Your task to perform on an android device: check android version Image 0: 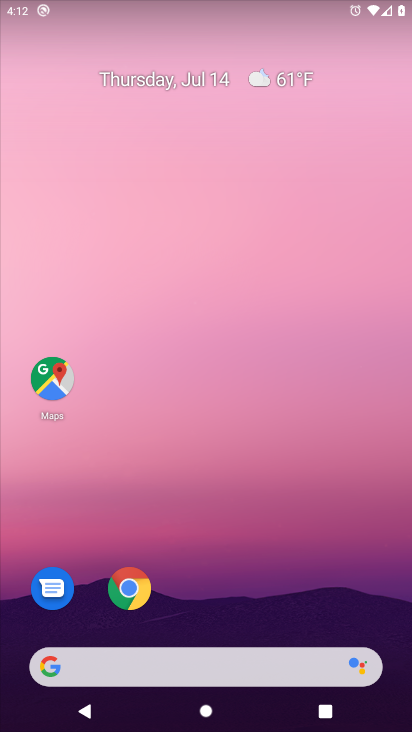
Step 0: press home button
Your task to perform on an android device: check android version Image 1: 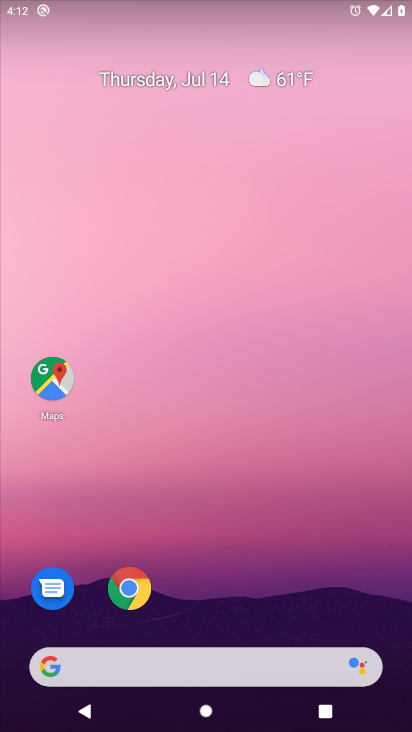
Step 1: drag from (274, 622) to (249, 2)
Your task to perform on an android device: check android version Image 2: 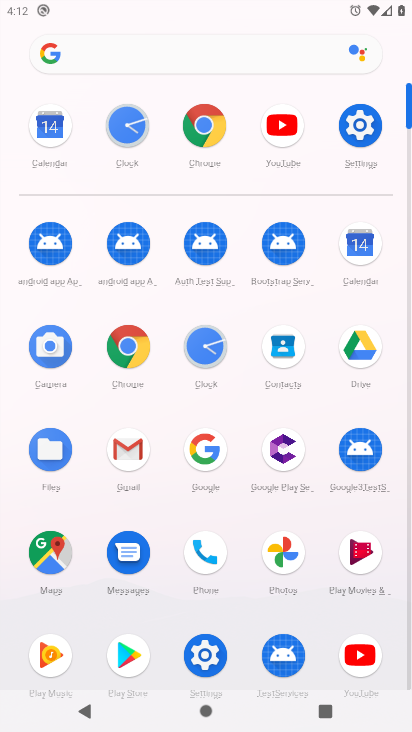
Step 2: click (370, 126)
Your task to perform on an android device: check android version Image 3: 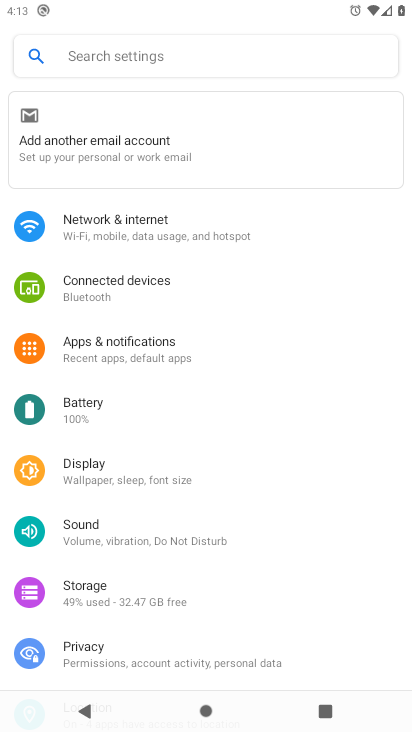
Step 3: drag from (252, 619) to (294, 2)
Your task to perform on an android device: check android version Image 4: 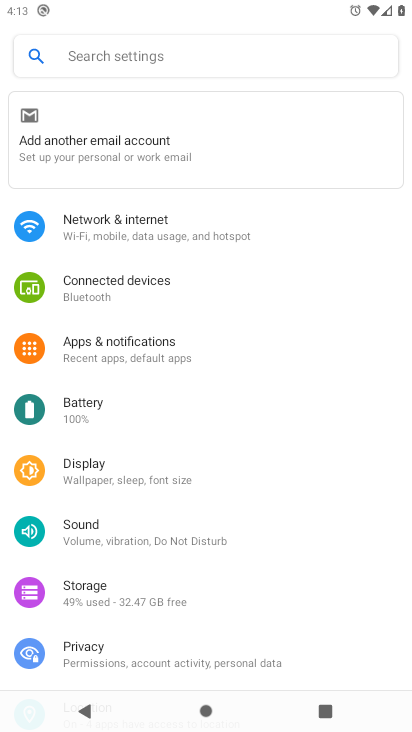
Step 4: drag from (171, 643) to (231, 73)
Your task to perform on an android device: check android version Image 5: 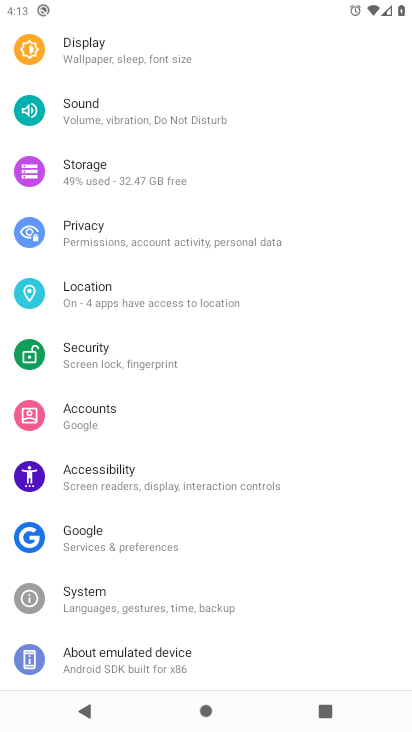
Step 5: click (121, 667)
Your task to perform on an android device: check android version Image 6: 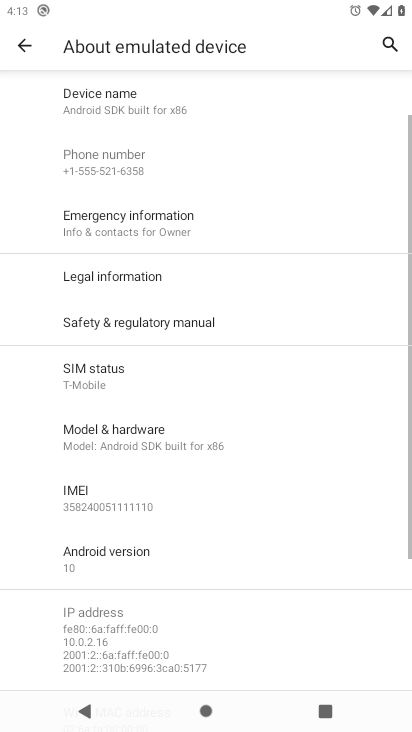
Step 6: click (117, 558)
Your task to perform on an android device: check android version Image 7: 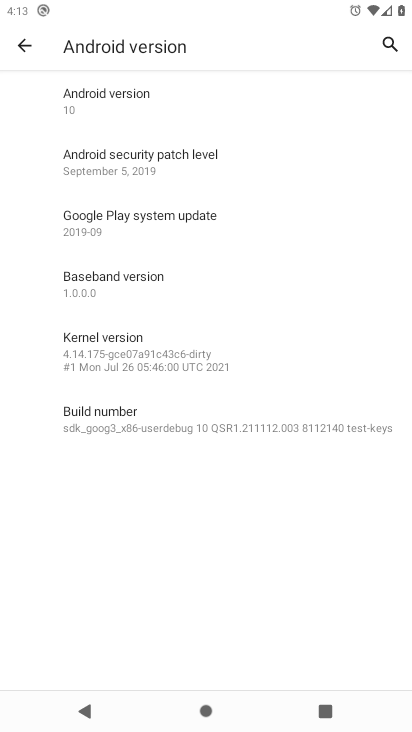
Step 7: task complete